Your task to perform on an android device: Open Yahoo.com Image 0: 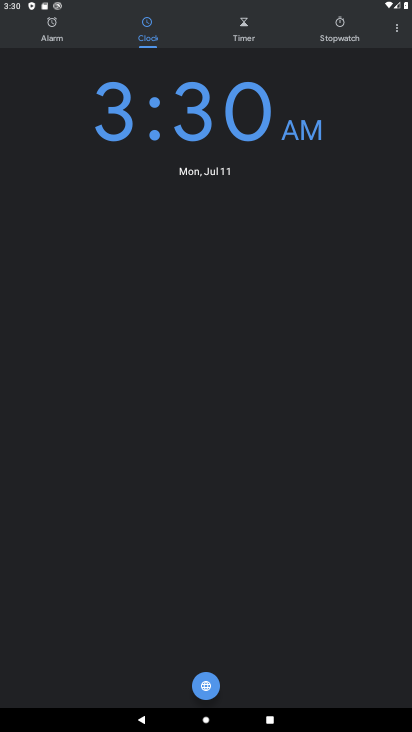
Step 0: press home button
Your task to perform on an android device: Open Yahoo.com Image 1: 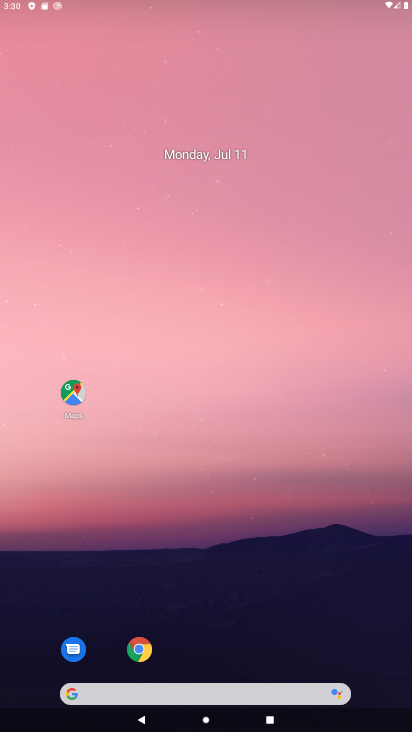
Step 1: drag from (152, 639) to (254, 141)
Your task to perform on an android device: Open Yahoo.com Image 2: 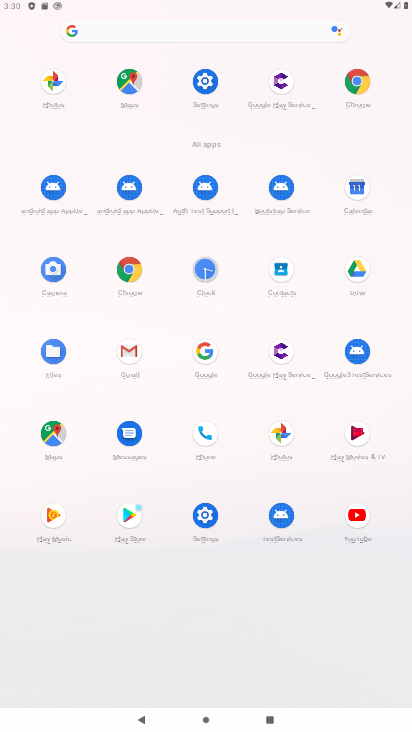
Step 2: click (204, 26)
Your task to perform on an android device: Open Yahoo.com Image 3: 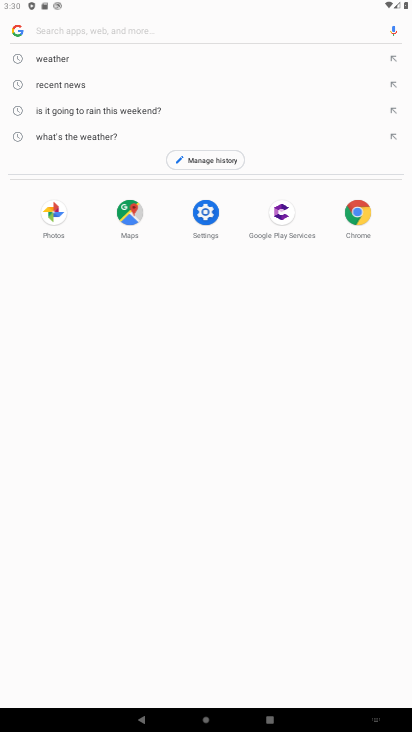
Step 3: click (75, 16)
Your task to perform on an android device: Open Yahoo.com Image 4: 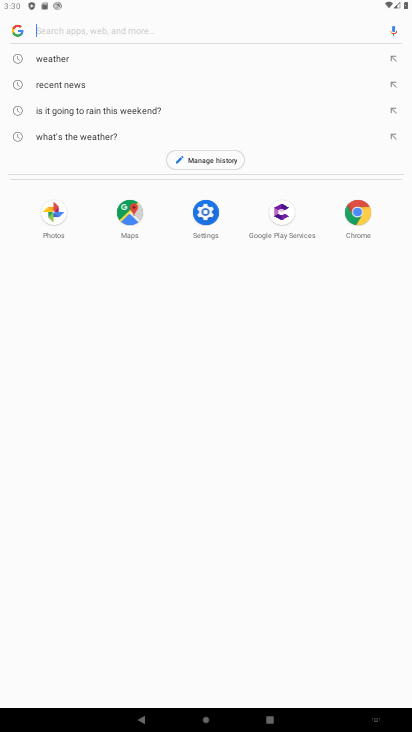
Step 4: click (55, 22)
Your task to perform on an android device: Open Yahoo.com Image 5: 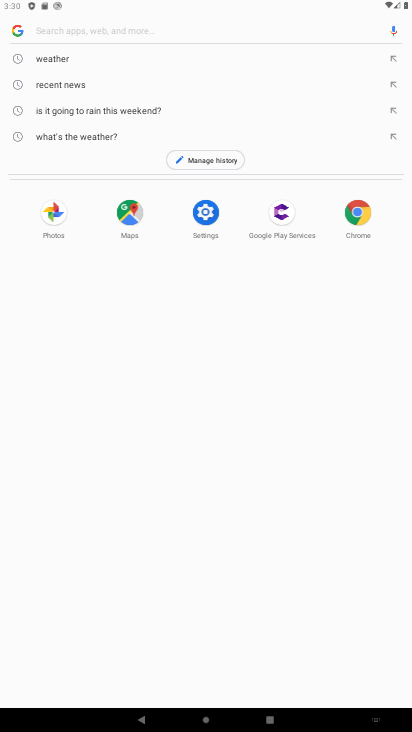
Step 5: type "Yahoo.com"
Your task to perform on an android device: Open Yahoo.com Image 6: 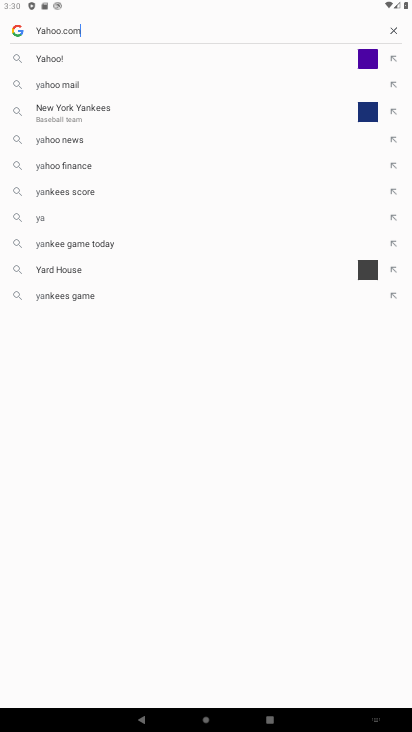
Step 6: type ""
Your task to perform on an android device: Open Yahoo.com Image 7: 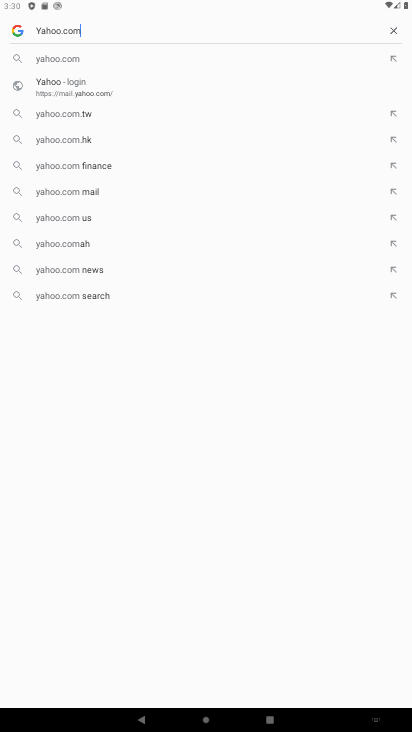
Step 7: click (65, 59)
Your task to perform on an android device: Open Yahoo.com Image 8: 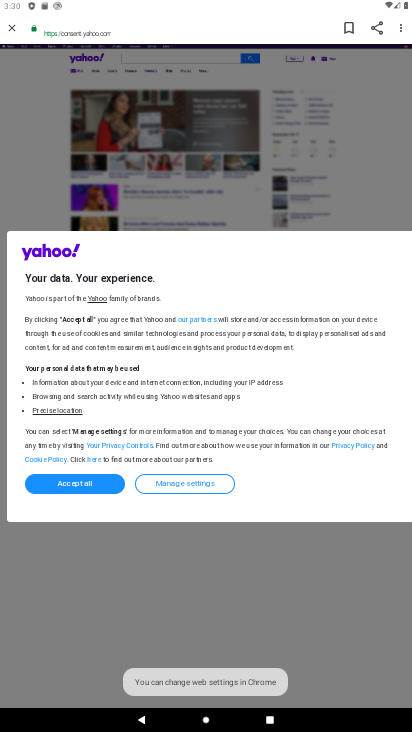
Step 8: task complete